Your task to perform on an android device: read, delete, or share a saved page in the chrome app Image 0: 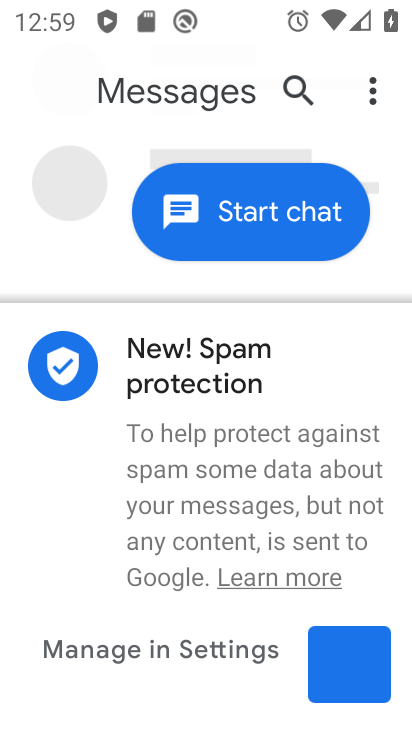
Step 0: press home button
Your task to perform on an android device: read, delete, or share a saved page in the chrome app Image 1: 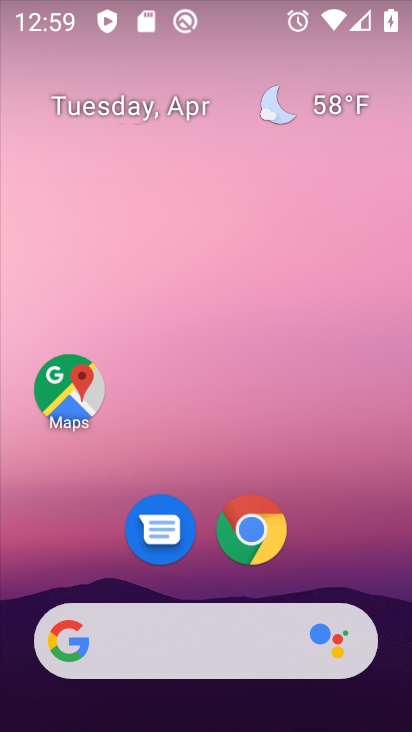
Step 1: drag from (391, 616) to (223, 63)
Your task to perform on an android device: read, delete, or share a saved page in the chrome app Image 2: 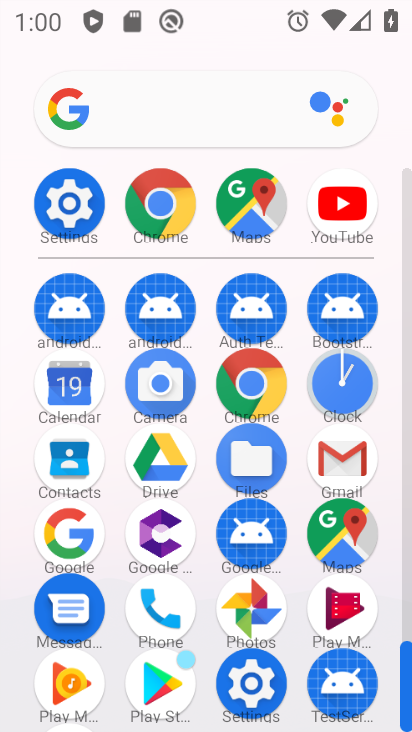
Step 2: click (247, 371)
Your task to perform on an android device: read, delete, or share a saved page in the chrome app Image 3: 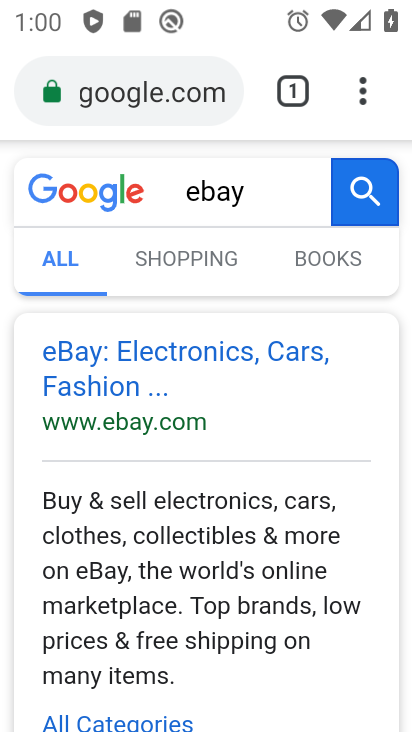
Step 3: task complete